Your task to perform on an android device: check storage Image 0: 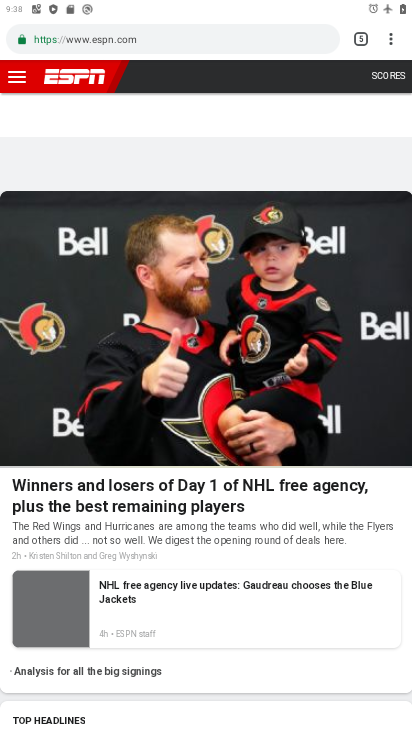
Step 0: press home button
Your task to perform on an android device: check storage Image 1: 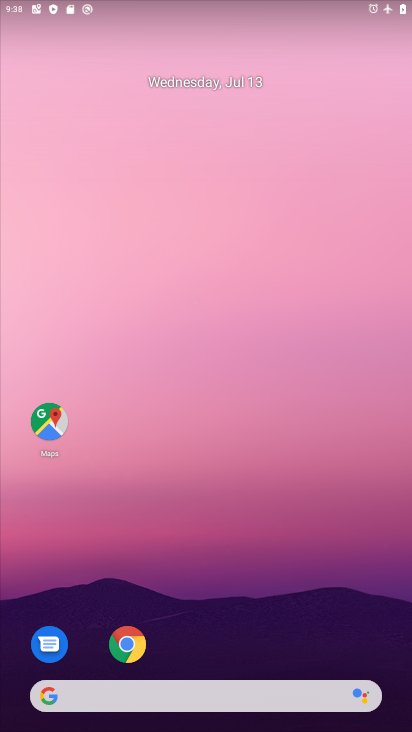
Step 1: drag from (286, 699) to (287, 165)
Your task to perform on an android device: check storage Image 2: 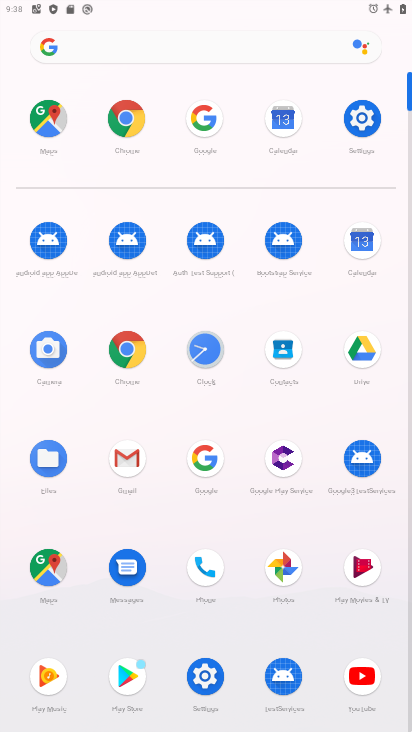
Step 2: click (365, 121)
Your task to perform on an android device: check storage Image 3: 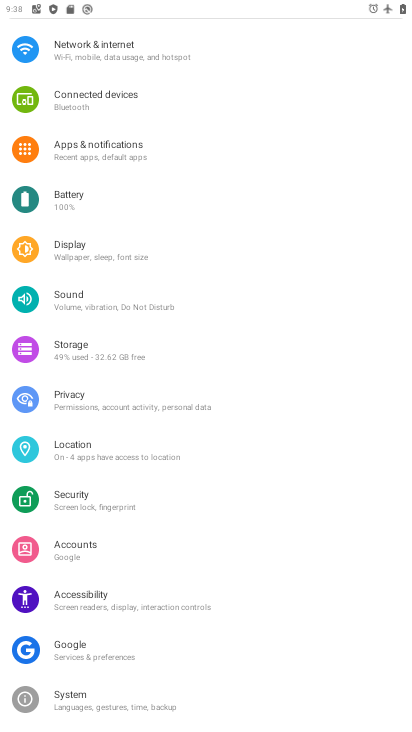
Step 3: click (81, 346)
Your task to perform on an android device: check storage Image 4: 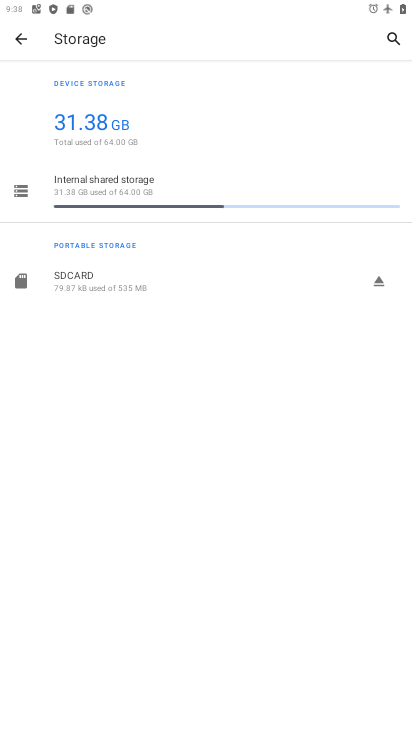
Step 4: task complete